Your task to perform on an android device: open chrome and create a bookmark for the current page Image 0: 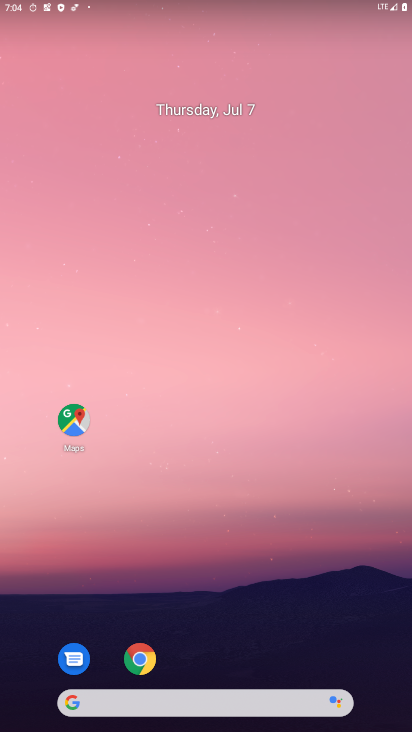
Step 0: drag from (379, 671) to (200, 10)
Your task to perform on an android device: open chrome and create a bookmark for the current page Image 1: 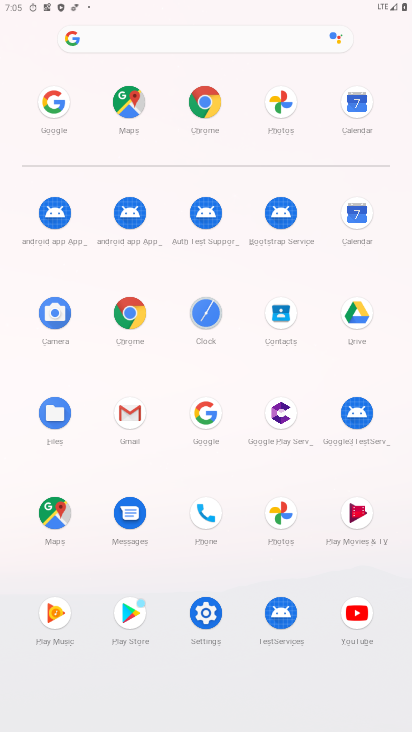
Step 1: click (205, 102)
Your task to perform on an android device: open chrome and create a bookmark for the current page Image 2: 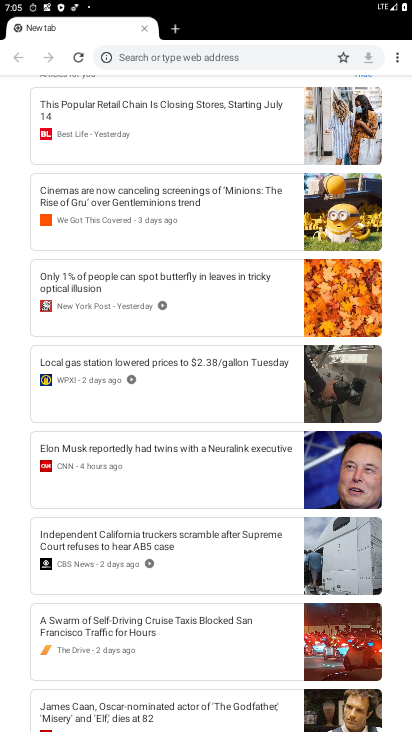
Step 2: click (396, 56)
Your task to perform on an android device: open chrome and create a bookmark for the current page Image 3: 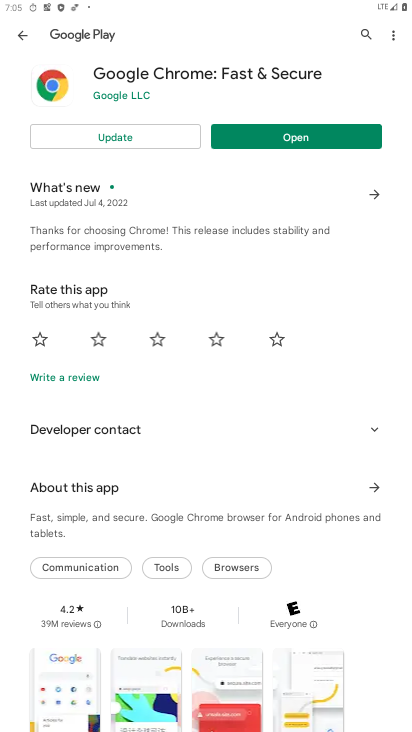
Step 3: press back button
Your task to perform on an android device: open chrome and create a bookmark for the current page Image 4: 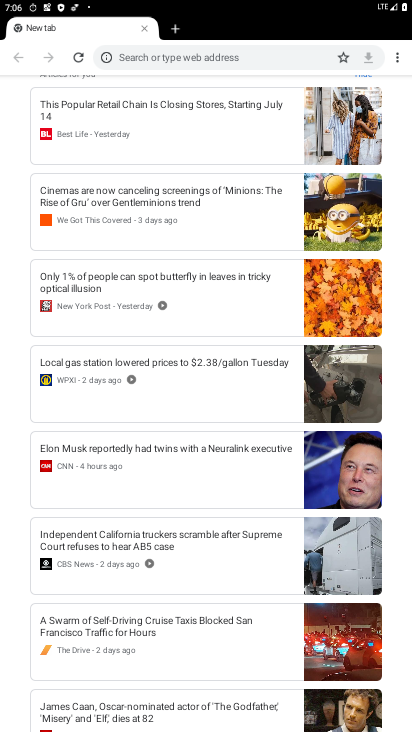
Step 4: click (396, 54)
Your task to perform on an android device: open chrome and create a bookmark for the current page Image 5: 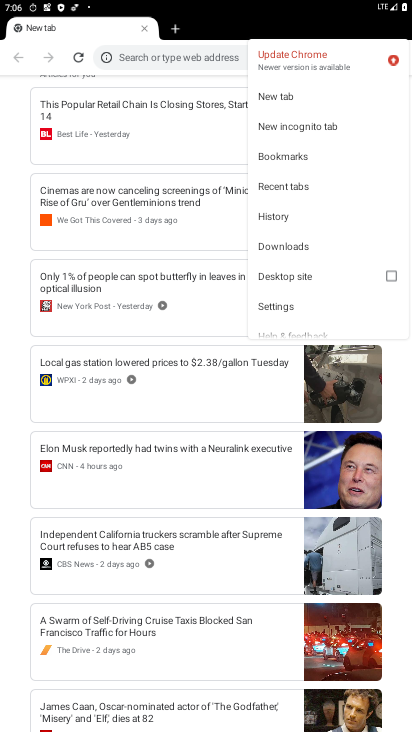
Step 5: click (295, 162)
Your task to perform on an android device: open chrome and create a bookmark for the current page Image 6: 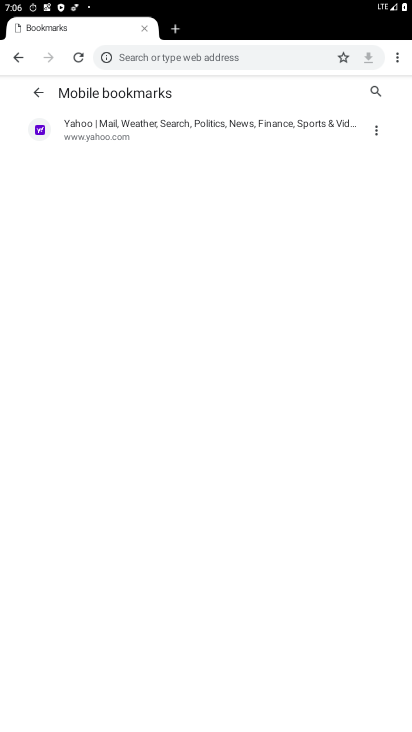
Step 6: click (347, 56)
Your task to perform on an android device: open chrome and create a bookmark for the current page Image 7: 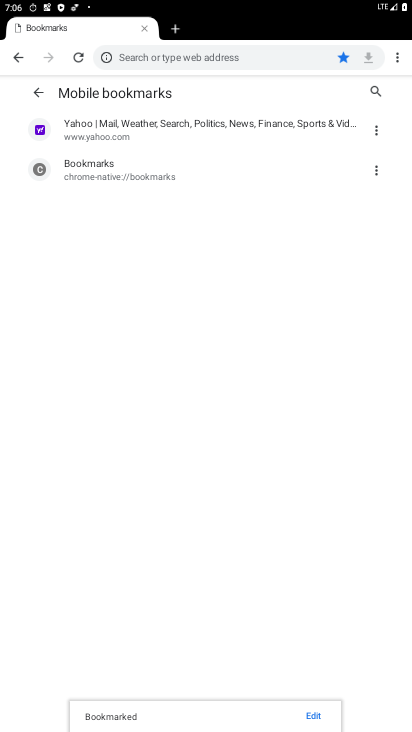
Step 7: task complete